Your task to perform on an android device: set default search engine in the chrome app Image 0: 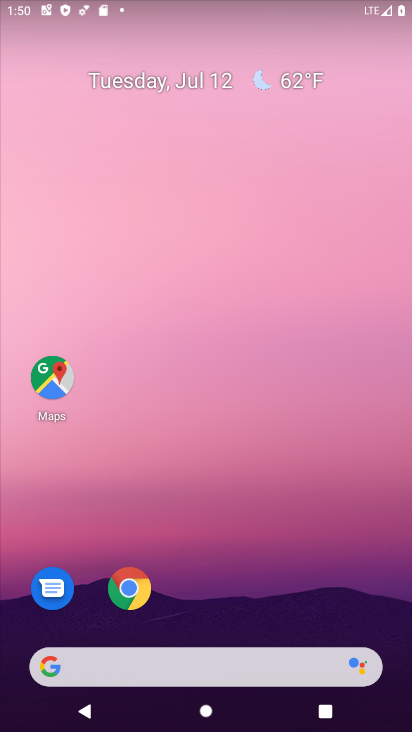
Step 0: click (134, 575)
Your task to perform on an android device: set default search engine in the chrome app Image 1: 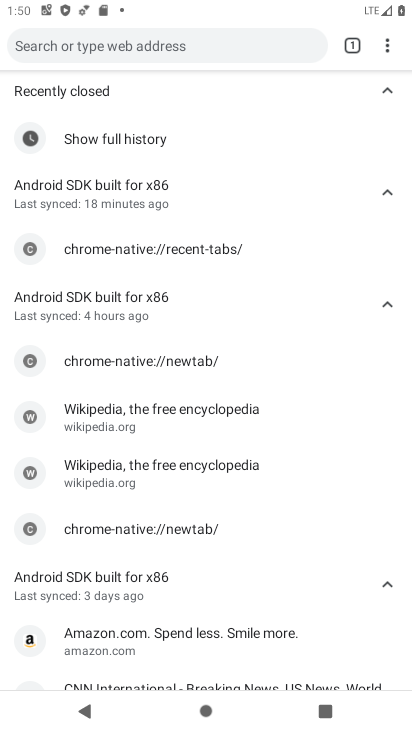
Step 1: click (386, 48)
Your task to perform on an android device: set default search engine in the chrome app Image 2: 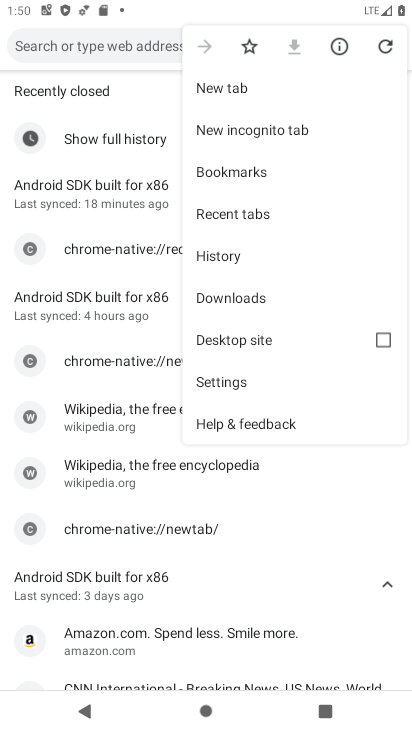
Step 2: click (234, 380)
Your task to perform on an android device: set default search engine in the chrome app Image 3: 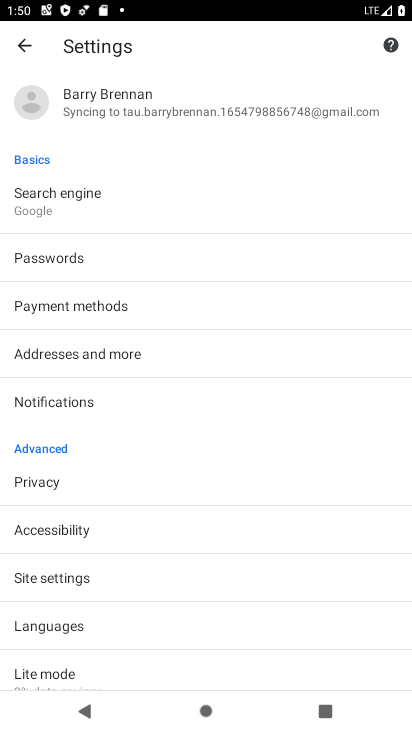
Step 3: click (81, 196)
Your task to perform on an android device: set default search engine in the chrome app Image 4: 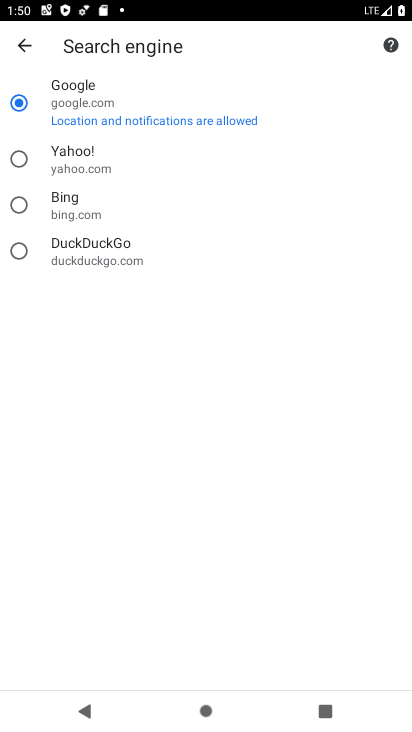
Step 4: task complete